Your task to perform on an android device: Is it going to rain this weekend? Image 0: 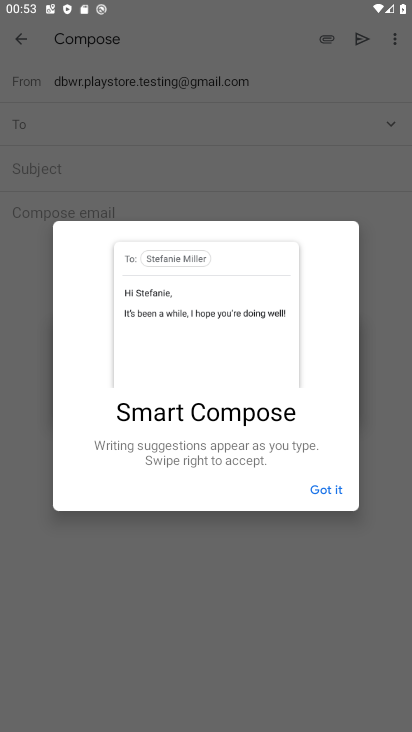
Step 0: press home button
Your task to perform on an android device: Is it going to rain this weekend? Image 1: 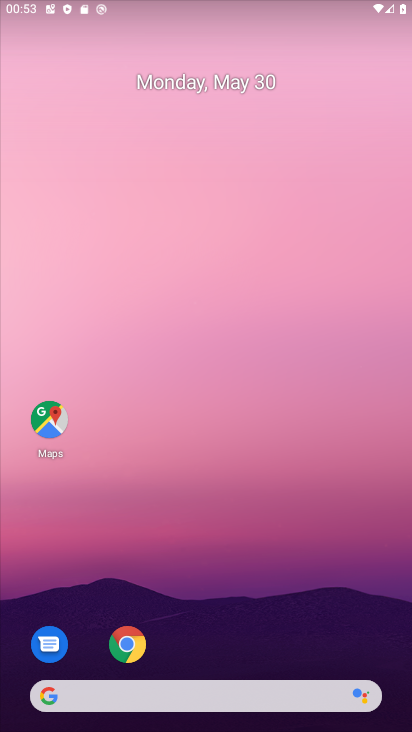
Step 1: drag from (322, 448) to (307, 123)
Your task to perform on an android device: Is it going to rain this weekend? Image 2: 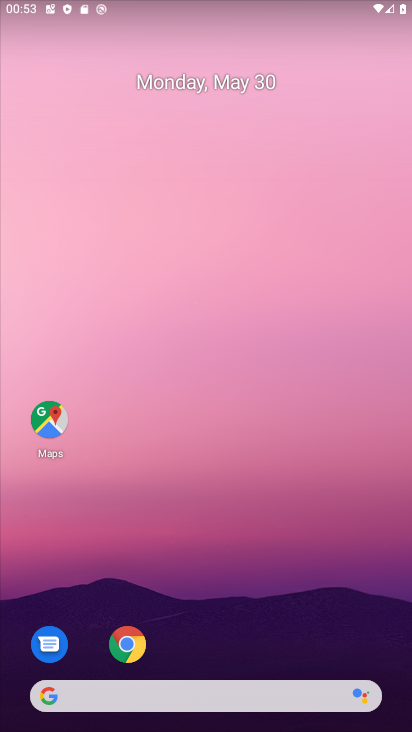
Step 2: drag from (309, 609) to (289, 258)
Your task to perform on an android device: Is it going to rain this weekend? Image 3: 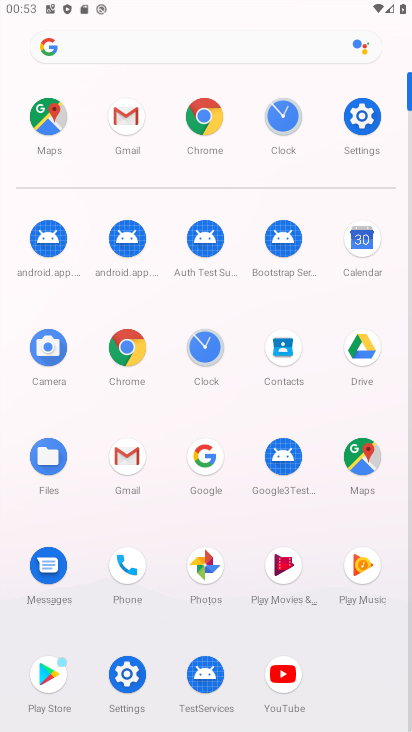
Step 3: click (112, 339)
Your task to perform on an android device: Is it going to rain this weekend? Image 4: 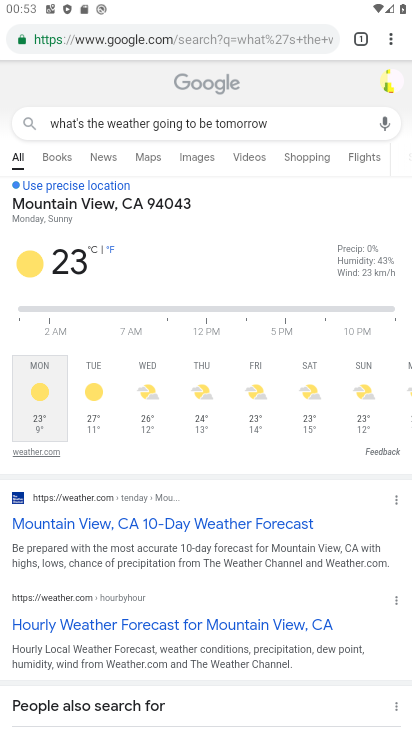
Step 4: click (266, 50)
Your task to perform on an android device: Is it going to rain this weekend? Image 5: 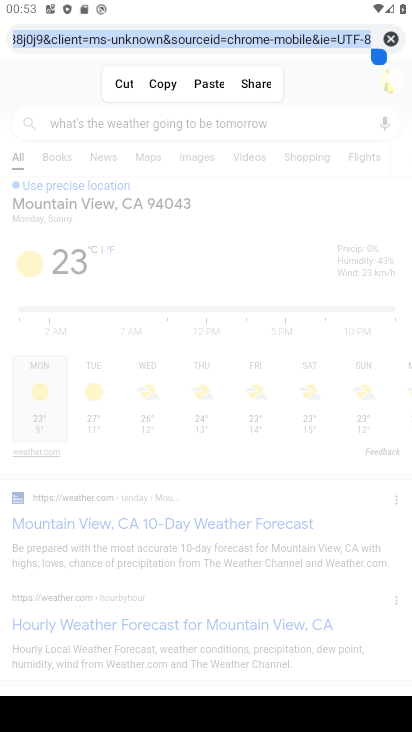
Step 5: click (397, 44)
Your task to perform on an android device: Is it going to rain this weekend? Image 6: 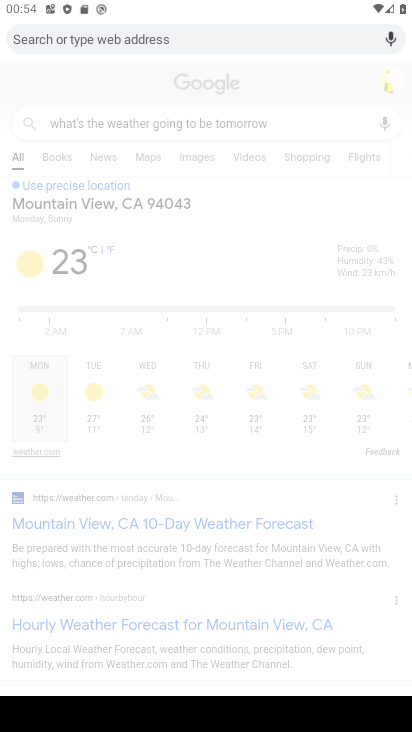
Step 6: type "is it going to rain this weekend "
Your task to perform on an android device: Is it going to rain this weekend? Image 7: 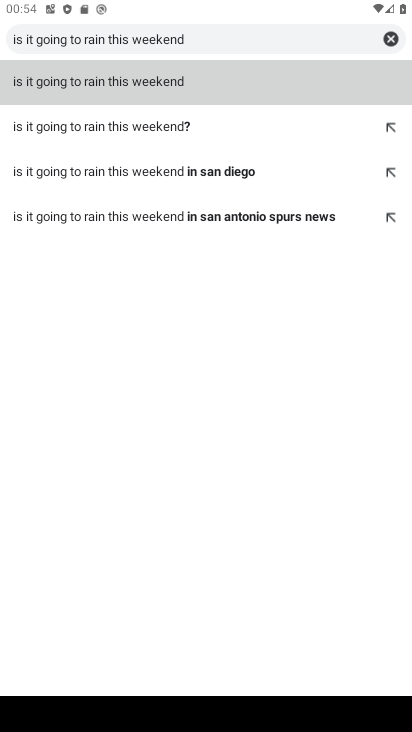
Step 7: click (239, 84)
Your task to perform on an android device: Is it going to rain this weekend? Image 8: 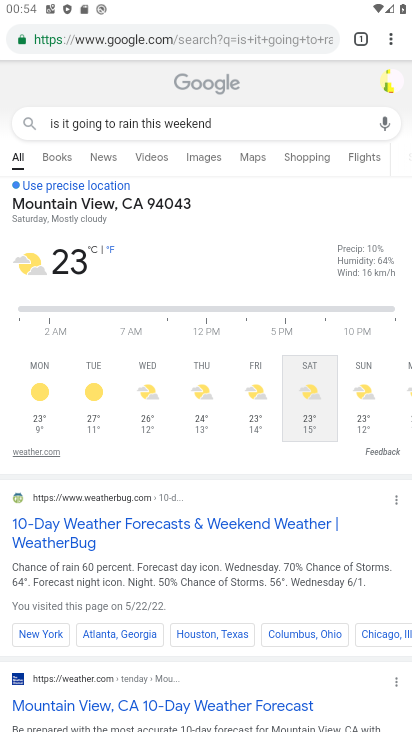
Step 8: task complete